Your task to perform on an android device: add a label to a message in the gmail app Image 0: 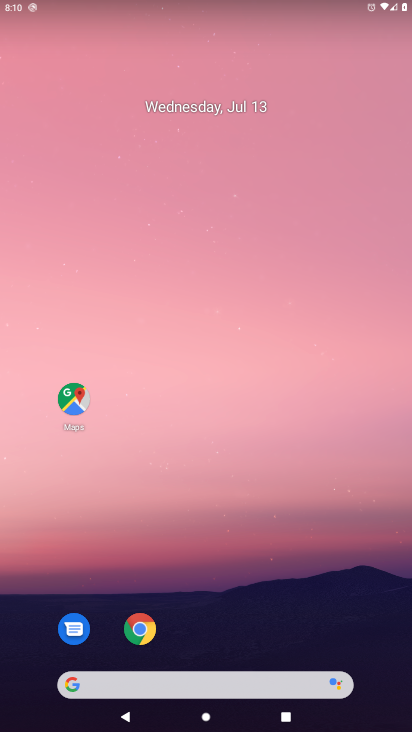
Step 0: drag from (23, 727) to (349, 12)
Your task to perform on an android device: add a label to a message in the gmail app Image 1: 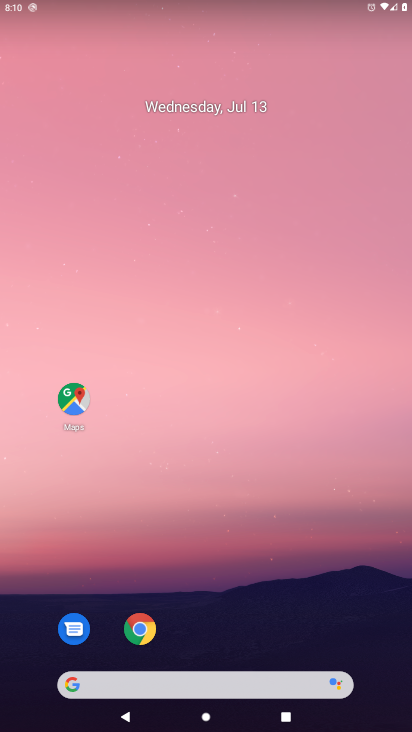
Step 1: drag from (56, 719) to (212, 132)
Your task to perform on an android device: add a label to a message in the gmail app Image 2: 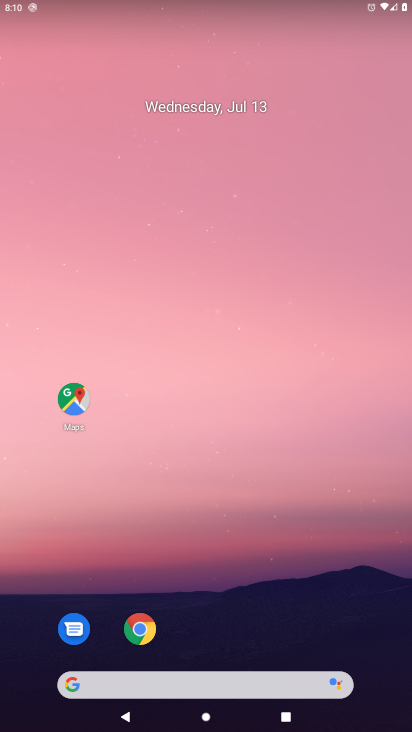
Step 2: drag from (98, 497) to (234, 118)
Your task to perform on an android device: add a label to a message in the gmail app Image 3: 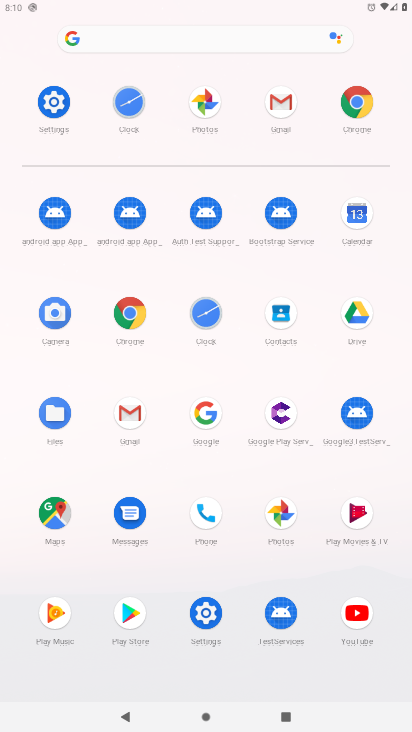
Step 3: click (129, 413)
Your task to perform on an android device: add a label to a message in the gmail app Image 4: 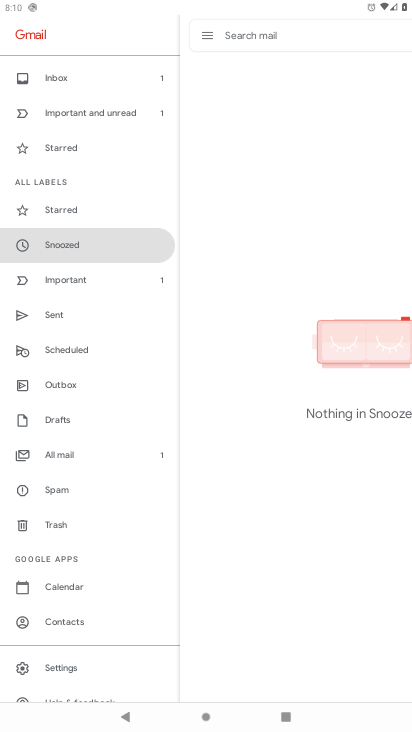
Step 4: click (51, 77)
Your task to perform on an android device: add a label to a message in the gmail app Image 5: 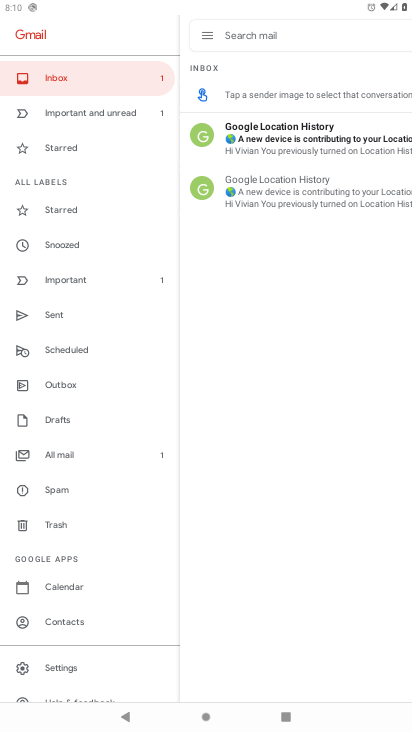
Step 5: task complete